Your task to perform on an android device: open app "The Home Depot" (install if not already installed) and enter user name: "taproot@icloud.com" and password: "executions" Image 0: 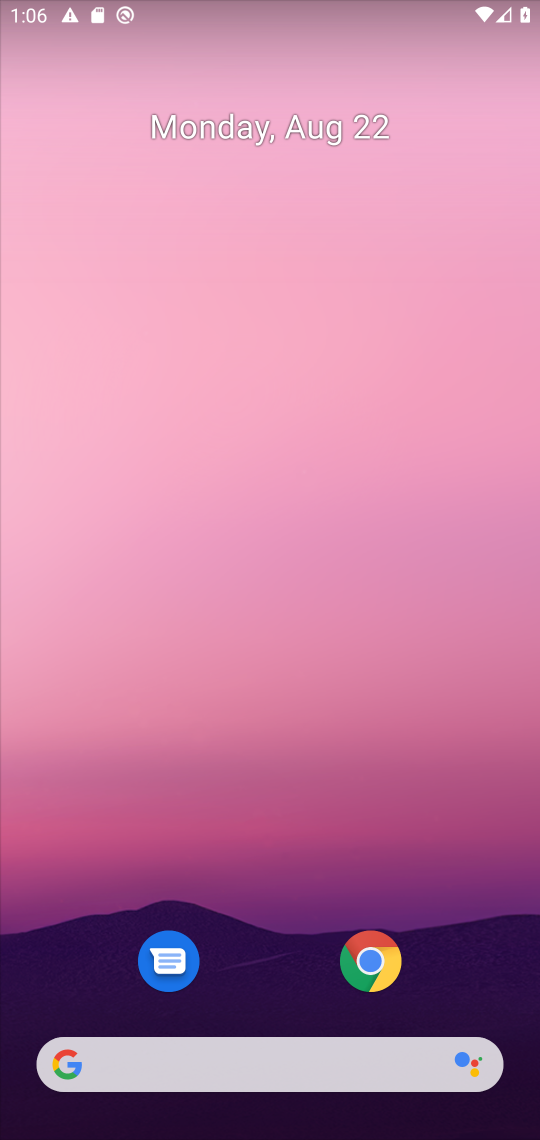
Step 0: press home button
Your task to perform on an android device: open app "The Home Depot" (install if not already installed) and enter user name: "taproot@icloud.com" and password: "executions" Image 1: 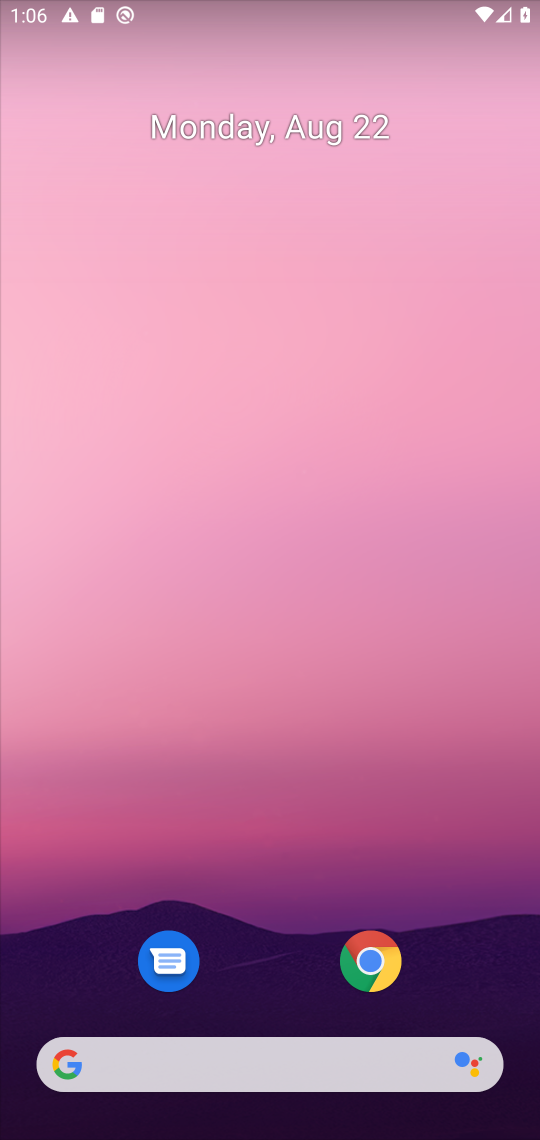
Step 1: drag from (461, 932) to (410, 324)
Your task to perform on an android device: open app "The Home Depot" (install if not already installed) and enter user name: "taproot@icloud.com" and password: "executions" Image 2: 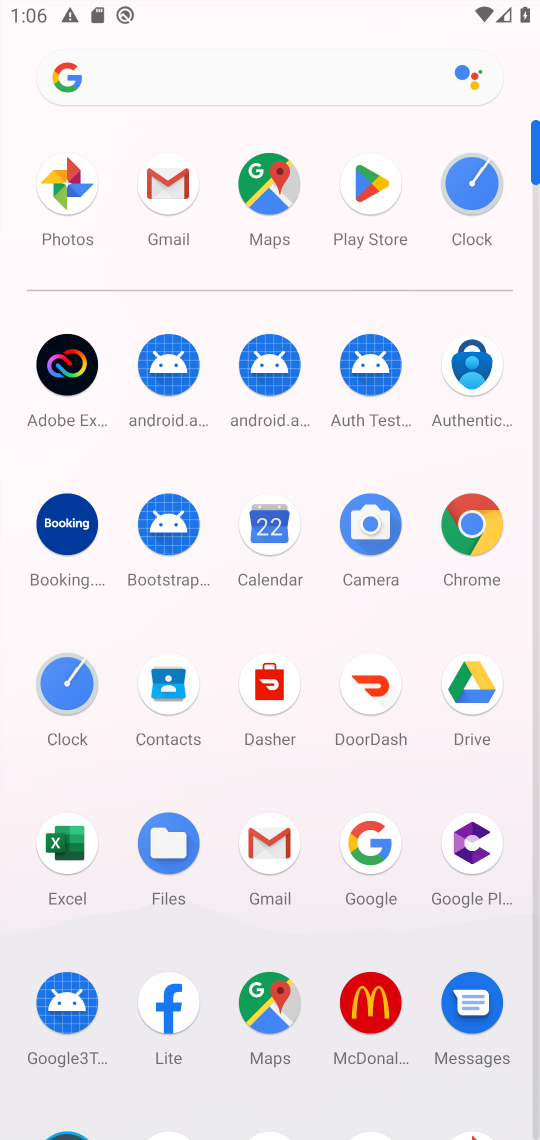
Step 2: click (379, 186)
Your task to perform on an android device: open app "The Home Depot" (install if not already installed) and enter user name: "taproot@icloud.com" and password: "executions" Image 3: 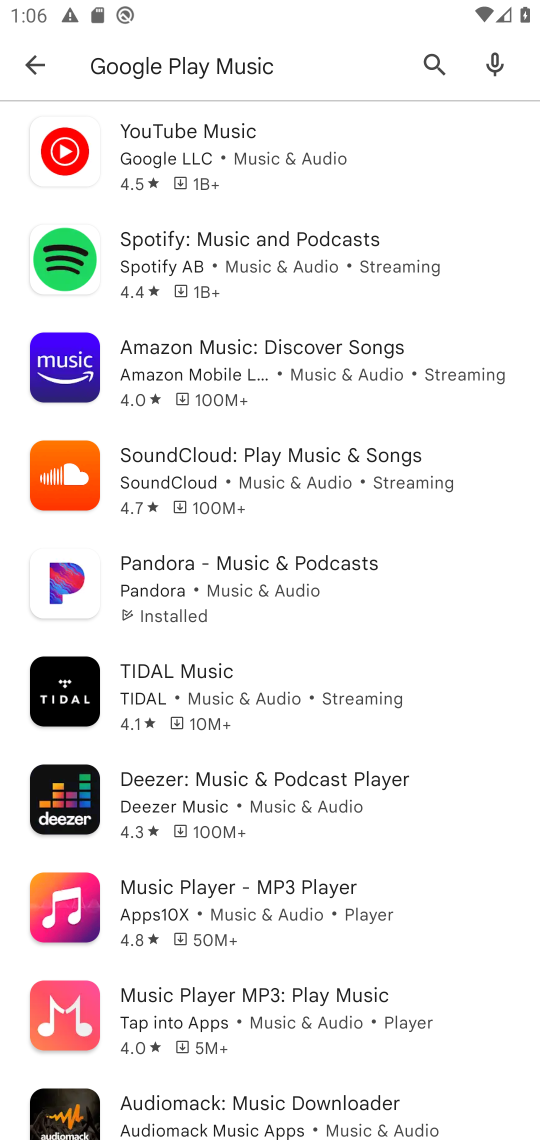
Step 3: press back button
Your task to perform on an android device: open app "The Home Depot" (install if not already installed) and enter user name: "taproot@icloud.com" and password: "executions" Image 4: 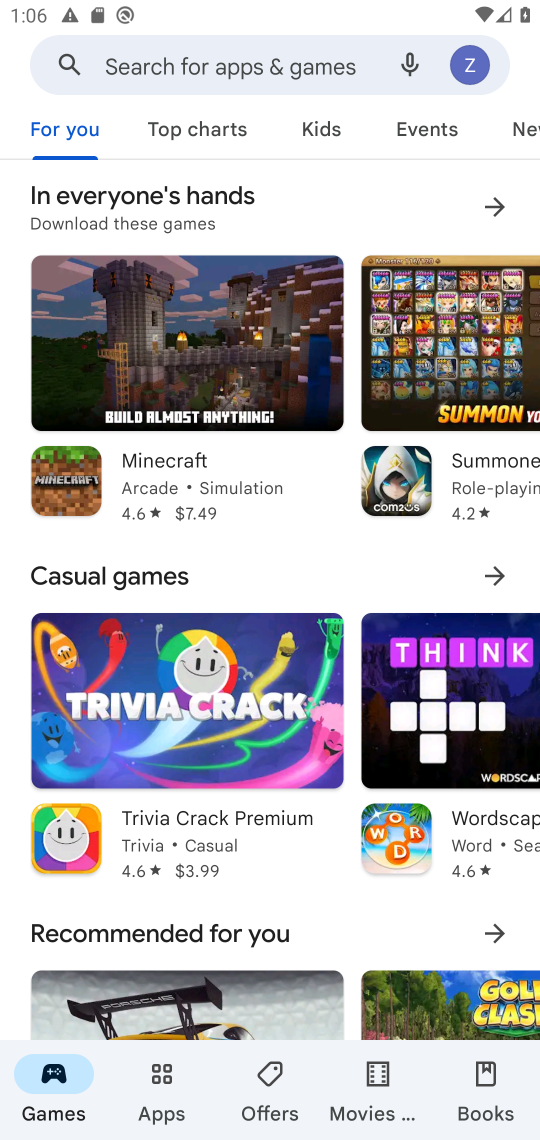
Step 4: click (281, 72)
Your task to perform on an android device: open app "The Home Depot" (install if not already installed) and enter user name: "taproot@icloud.com" and password: "executions" Image 5: 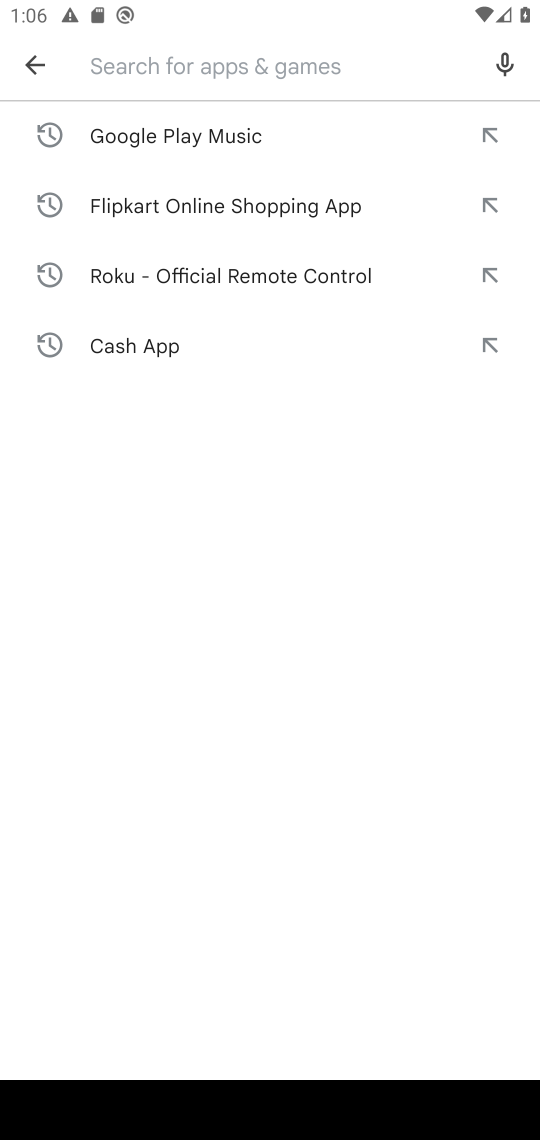
Step 5: type "The Home Depot"
Your task to perform on an android device: open app "The Home Depot" (install if not already installed) and enter user name: "taproot@icloud.com" and password: "executions" Image 6: 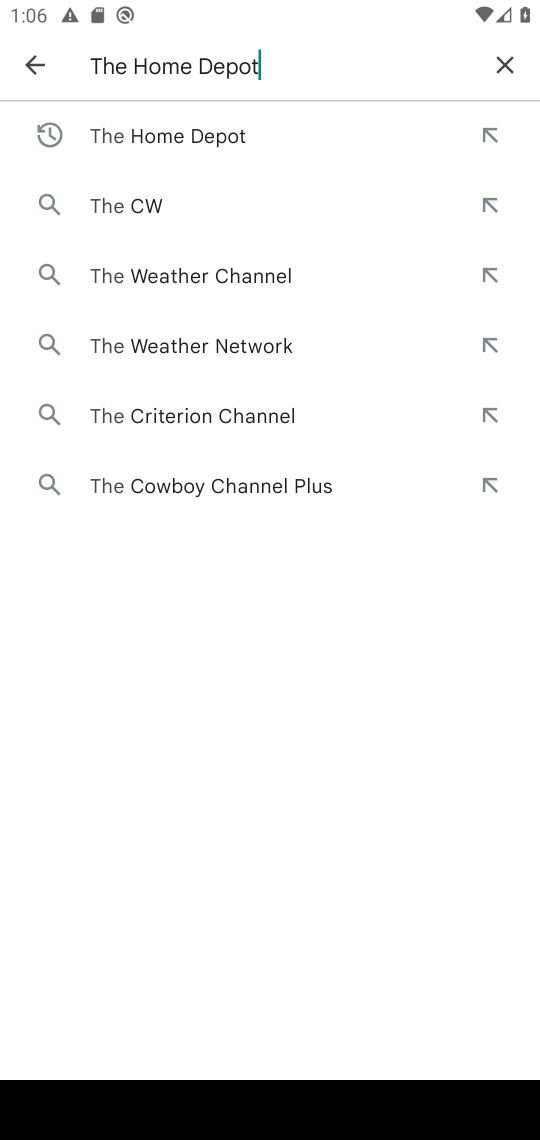
Step 6: press enter
Your task to perform on an android device: open app "The Home Depot" (install if not already installed) and enter user name: "taproot@icloud.com" and password: "executions" Image 7: 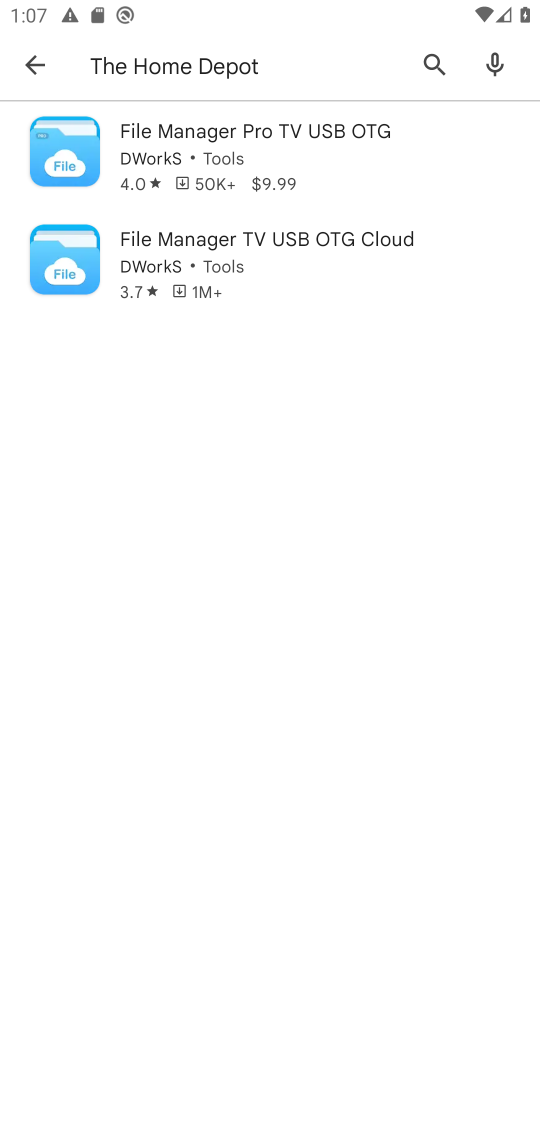
Step 7: task complete